Your task to perform on an android device: Open Google Image 0: 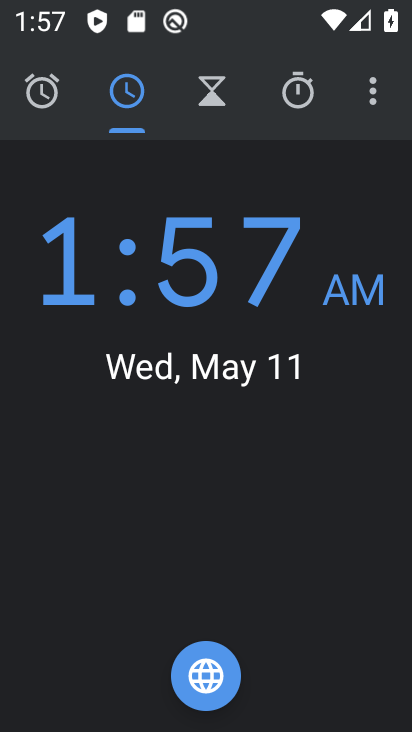
Step 0: press back button
Your task to perform on an android device: Open Google Image 1: 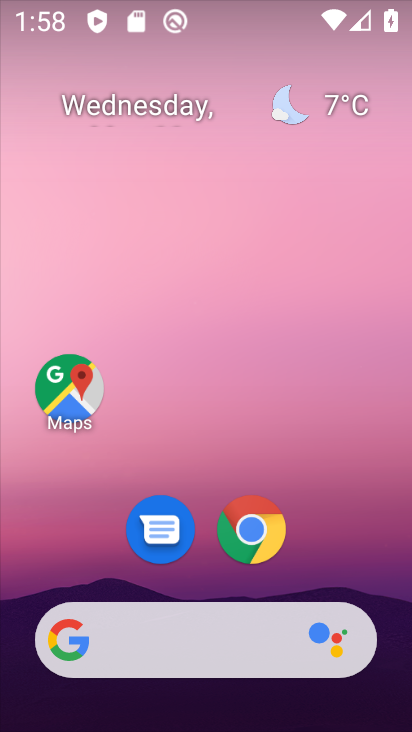
Step 1: click (55, 643)
Your task to perform on an android device: Open Google Image 2: 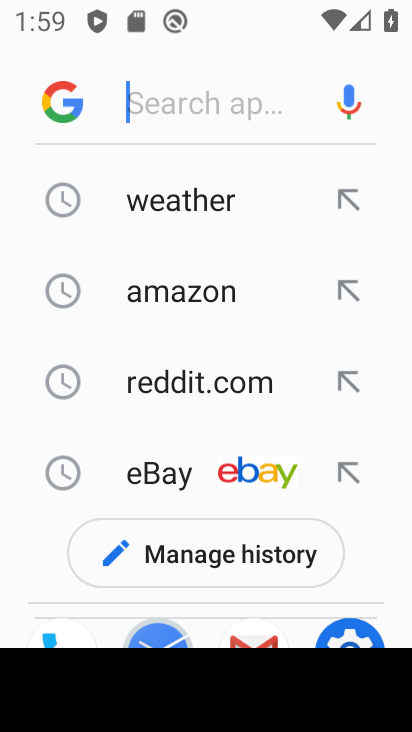
Step 2: click (63, 90)
Your task to perform on an android device: Open Google Image 3: 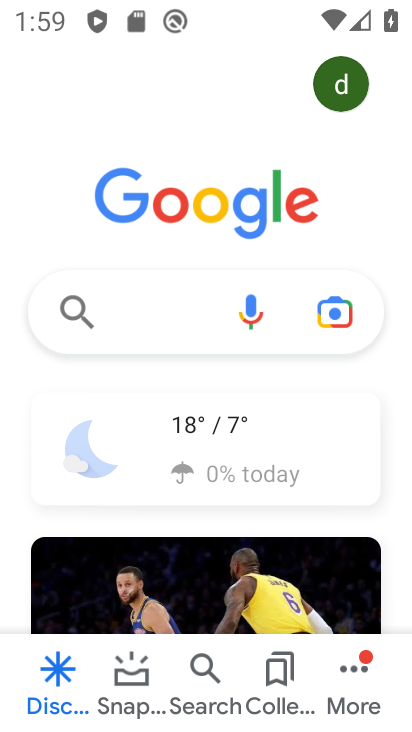
Step 3: task complete